Your task to perform on an android device: find photos in the google photos app Image 0: 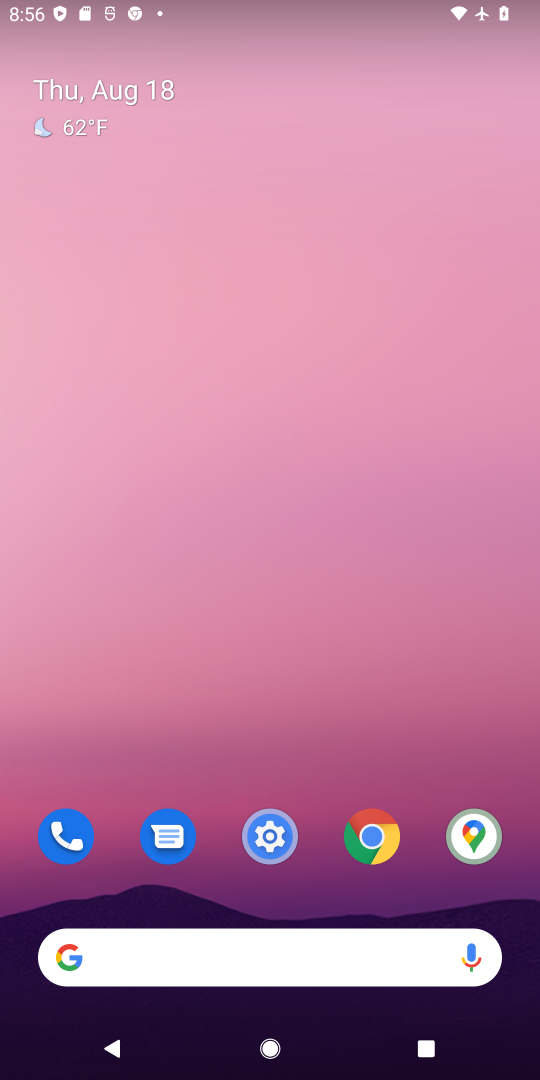
Step 0: drag from (279, 764) to (229, 31)
Your task to perform on an android device: find photos in the google photos app Image 1: 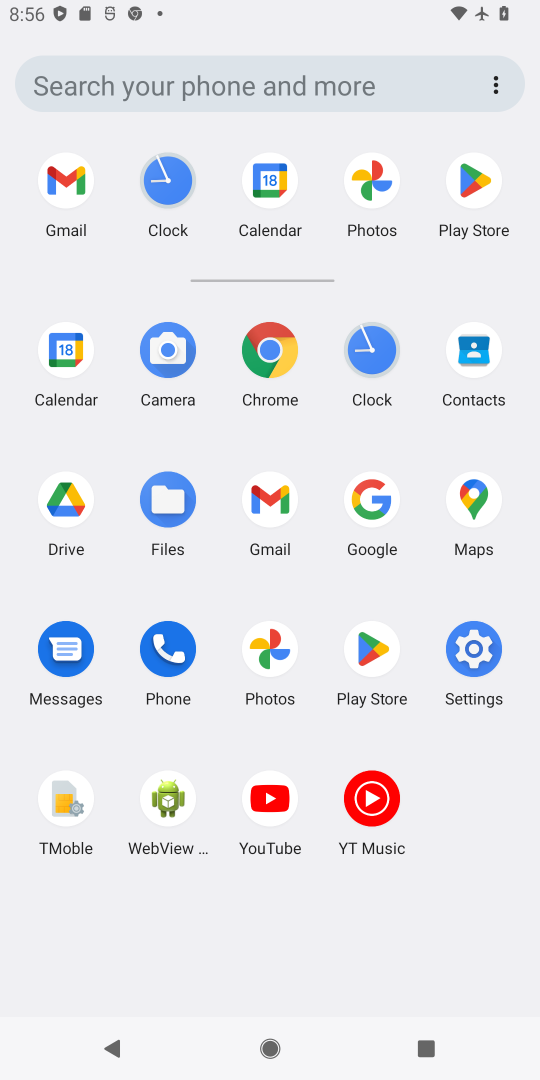
Step 1: click (283, 658)
Your task to perform on an android device: find photos in the google photos app Image 2: 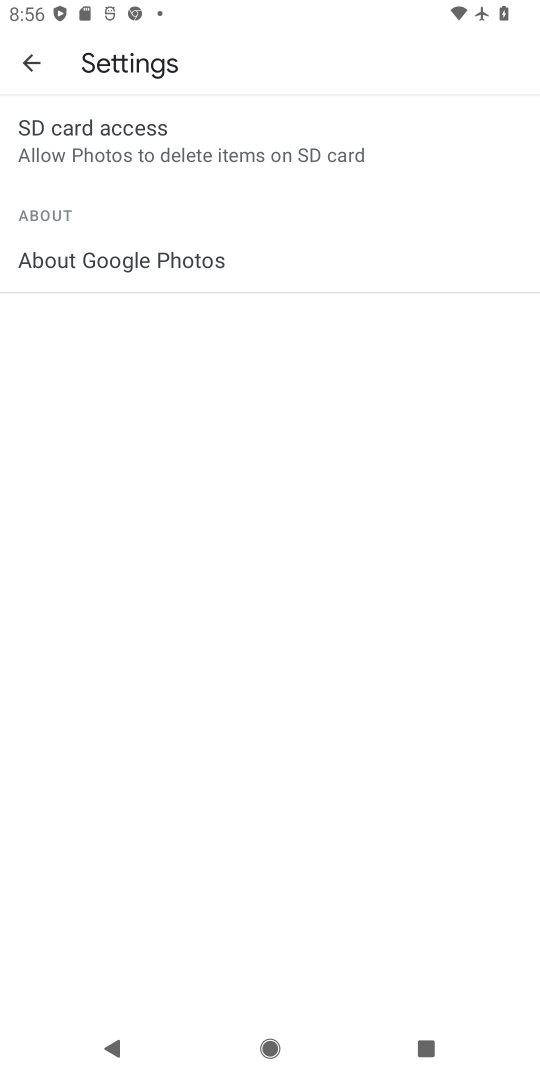
Step 2: click (33, 71)
Your task to perform on an android device: find photos in the google photos app Image 3: 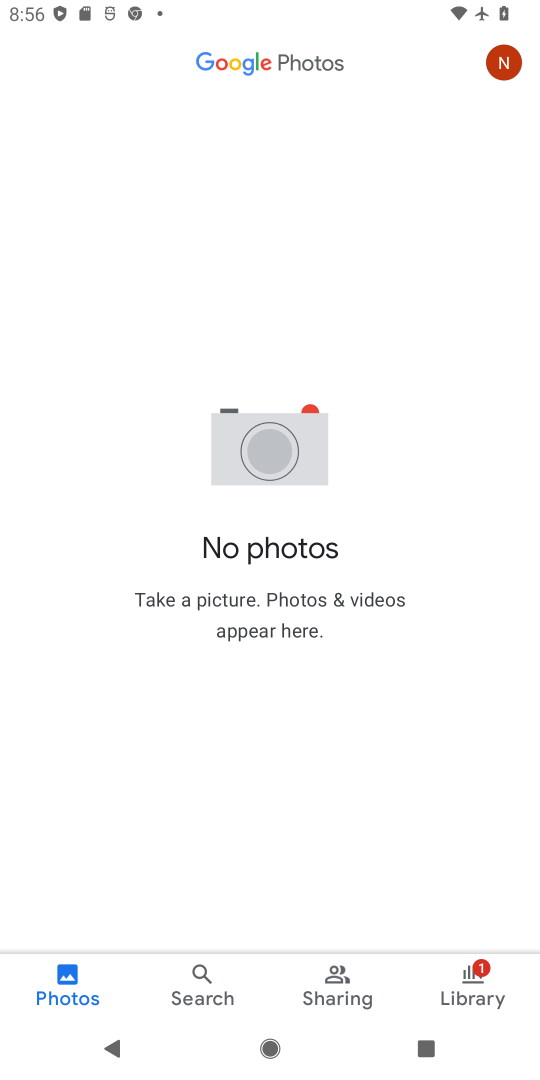
Step 3: task complete